Your task to perform on an android device: turn on javascript in the chrome app Image 0: 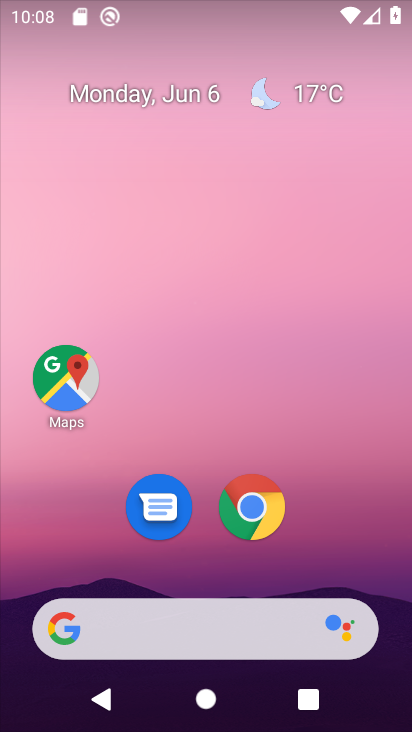
Step 0: click (258, 519)
Your task to perform on an android device: turn on javascript in the chrome app Image 1: 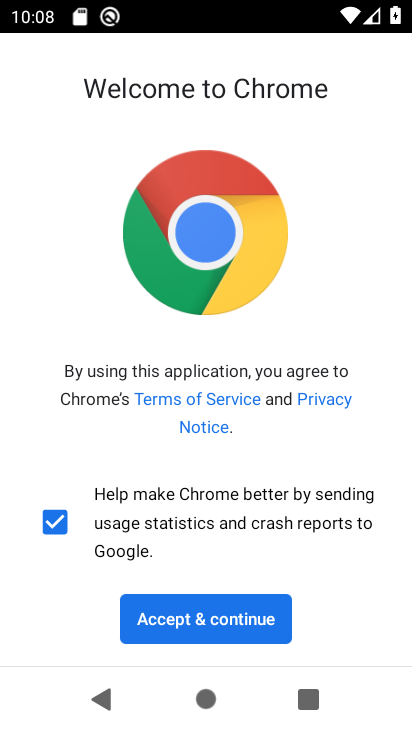
Step 1: click (144, 625)
Your task to perform on an android device: turn on javascript in the chrome app Image 2: 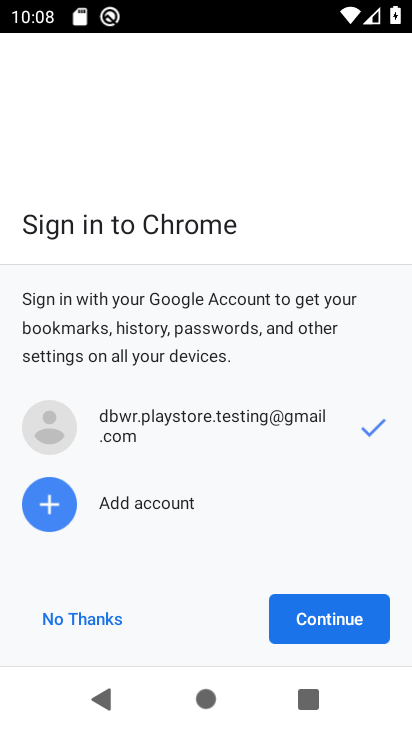
Step 2: click (348, 627)
Your task to perform on an android device: turn on javascript in the chrome app Image 3: 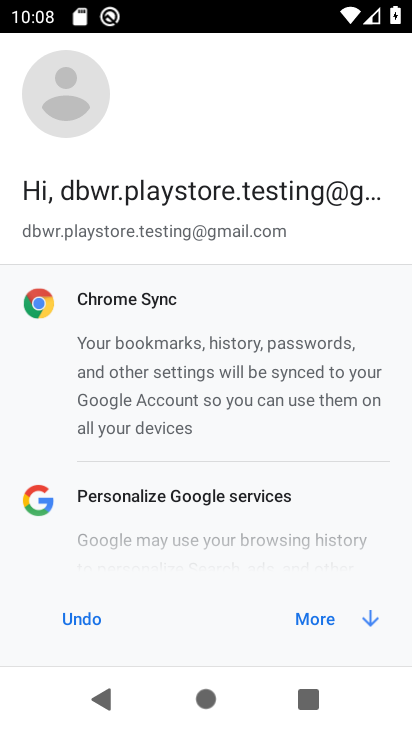
Step 3: click (310, 632)
Your task to perform on an android device: turn on javascript in the chrome app Image 4: 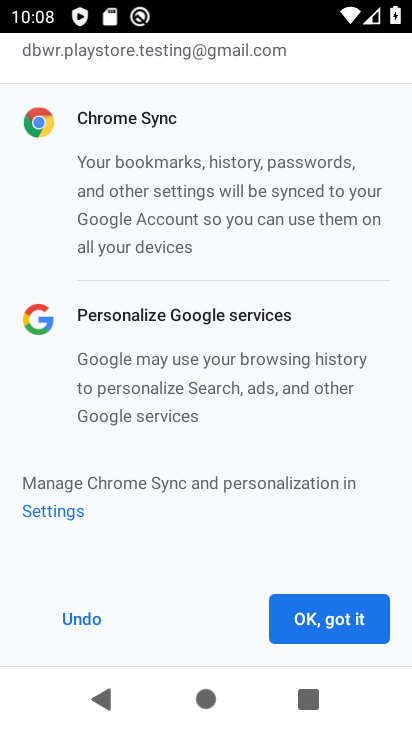
Step 4: click (316, 627)
Your task to perform on an android device: turn on javascript in the chrome app Image 5: 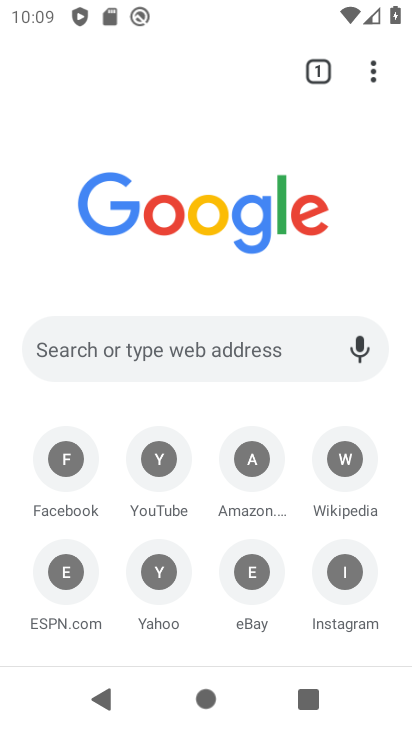
Step 5: click (368, 67)
Your task to perform on an android device: turn on javascript in the chrome app Image 6: 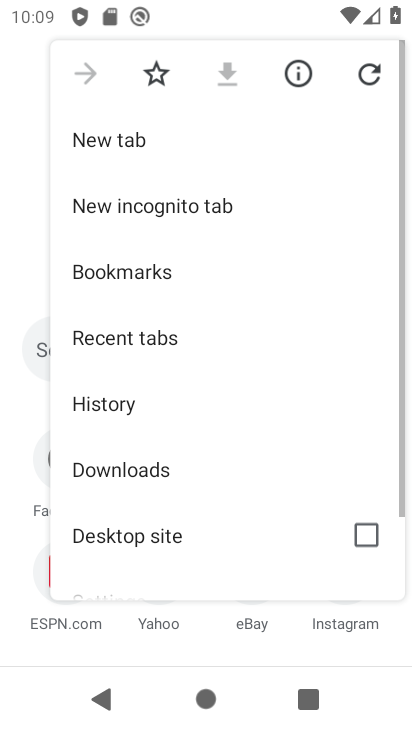
Step 6: drag from (197, 525) to (199, 226)
Your task to perform on an android device: turn on javascript in the chrome app Image 7: 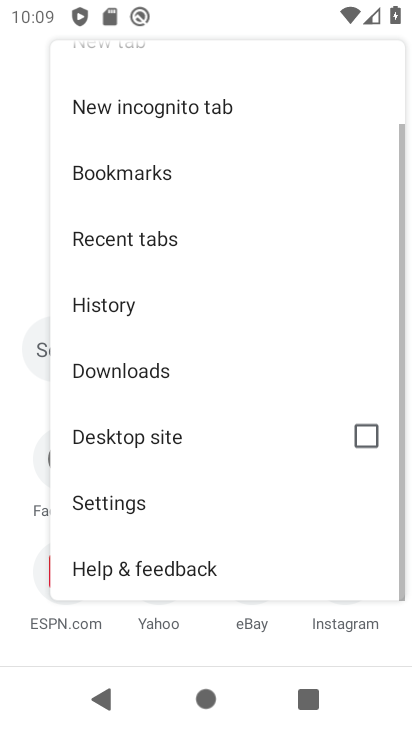
Step 7: click (132, 518)
Your task to perform on an android device: turn on javascript in the chrome app Image 8: 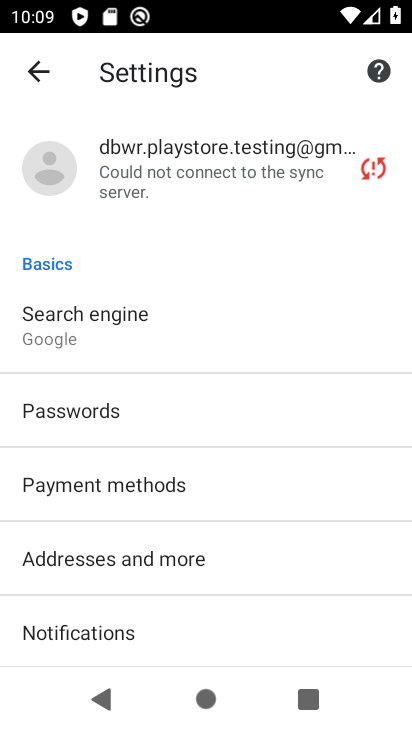
Step 8: drag from (125, 628) to (163, 212)
Your task to perform on an android device: turn on javascript in the chrome app Image 9: 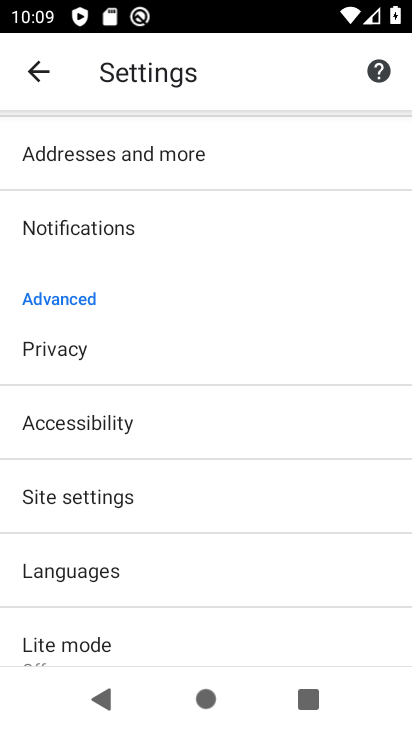
Step 9: click (83, 512)
Your task to perform on an android device: turn on javascript in the chrome app Image 10: 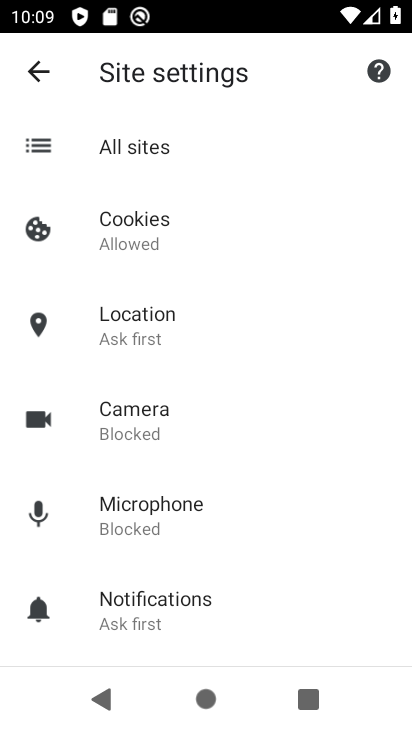
Step 10: drag from (231, 484) to (222, 167)
Your task to perform on an android device: turn on javascript in the chrome app Image 11: 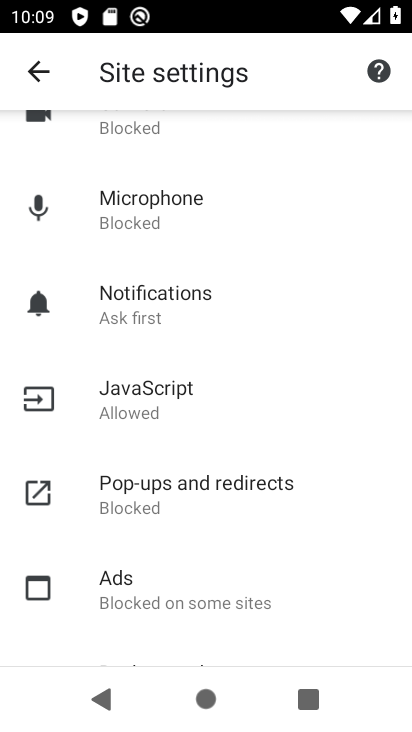
Step 11: click (146, 403)
Your task to perform on an android device: turn on javascript in the chrome app Image 12: 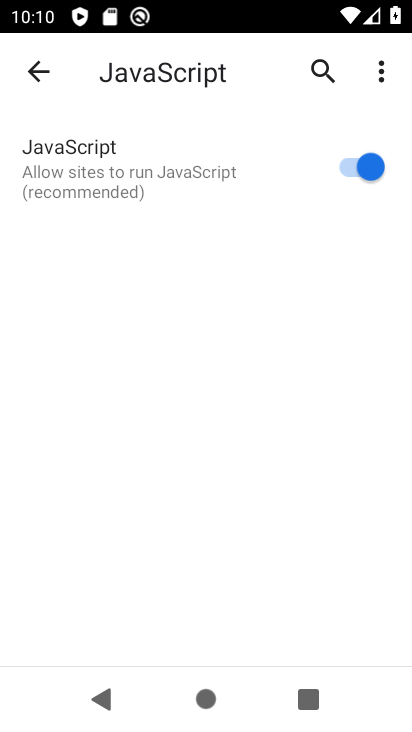
Step 12: task complete